Your task to perform on an android device: Show me popular videos on Youtube Image 0: 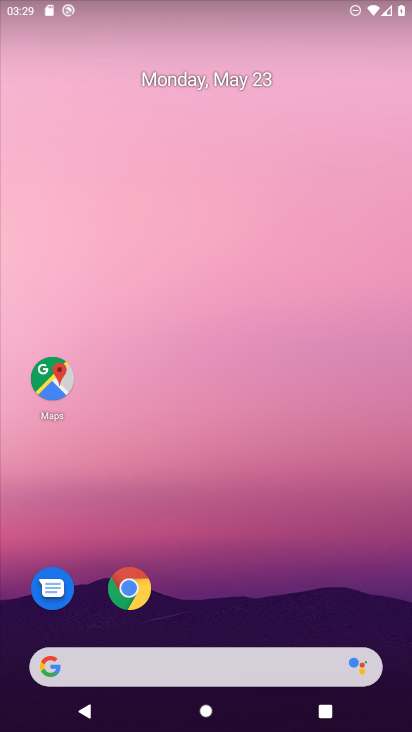
Step 0: drag from (248, 727) to (236, 28)
Your task to perform on an android device: Show me popular videos on Youtube Image 1: 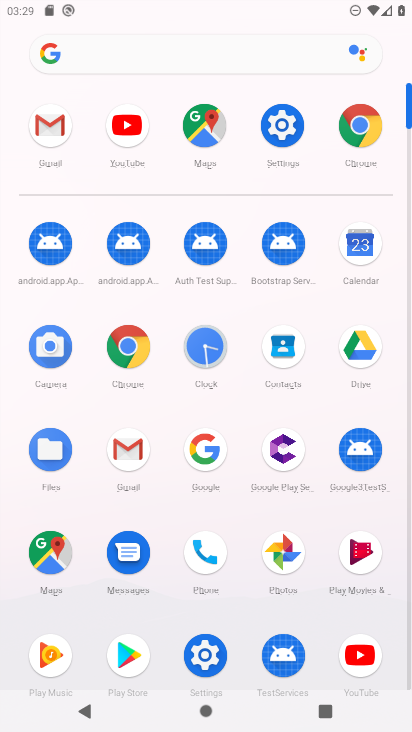
Step 1: click (372, 651)
Your task to perform on an android device: Show me popular videos on Youtube Image 2: 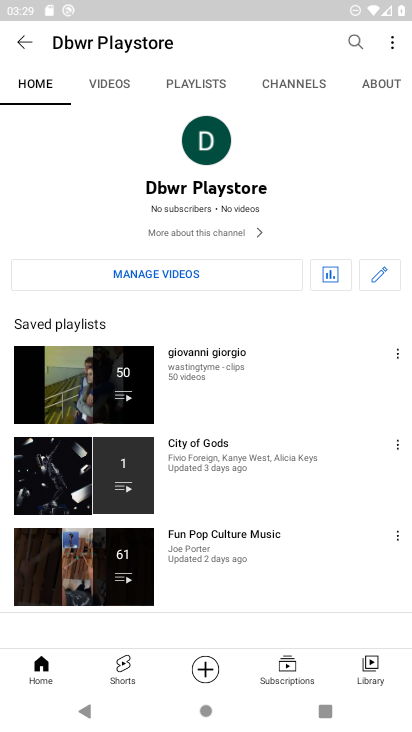
Step 2: click (23, 38)
Your task to perform on an android device: Show me popular videos on Youtube Image 3: 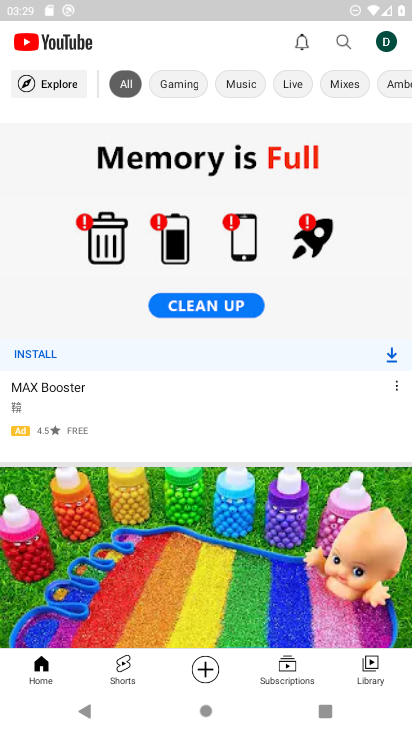
Step 3: click (344, 40)
Your task to perform on an android device: Show me popular videos on Youtube Image 4: 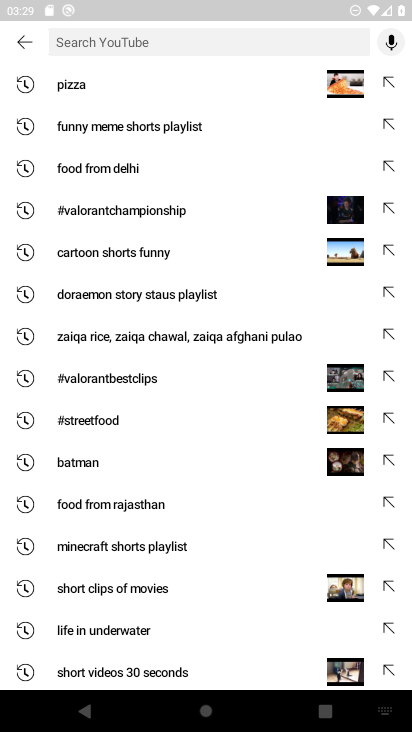
Step 4: type "popular videos on youtube"
Your task to perform on an android device: Show me popular videos on Youtube Image 5: 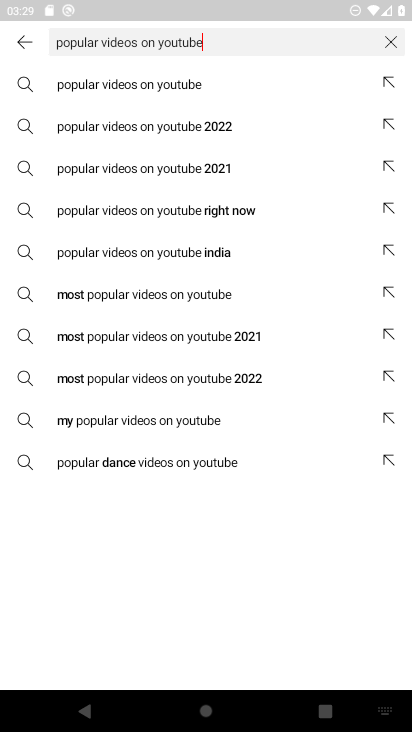
Step 5: click (125, 78)
Your task to perform on an android device: Show me popular videos on Youtube Image 6: 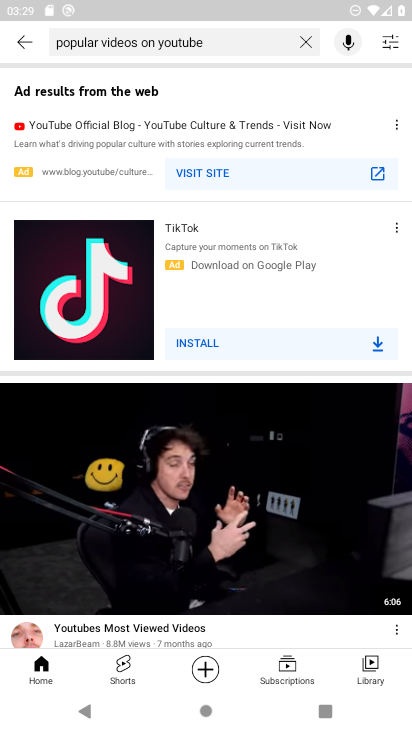
Step 6: click (215, 497)
Your task to perform on an android device: Show me popular videos on Youtube Image 7: 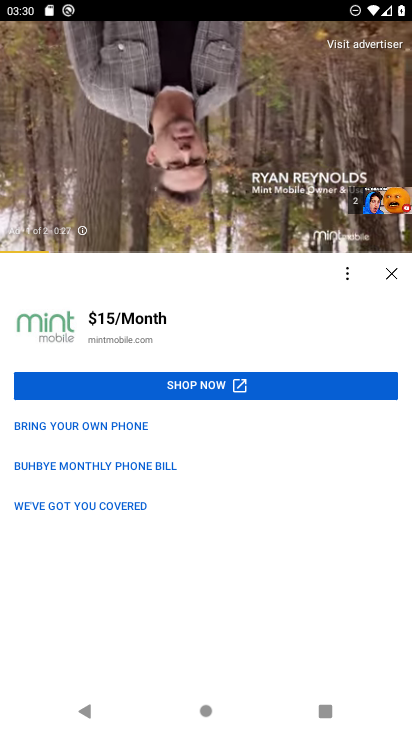
Step 7: click (391, 268)
Your task to perform on an android device: Show me popular videos on Youtube Image 8: 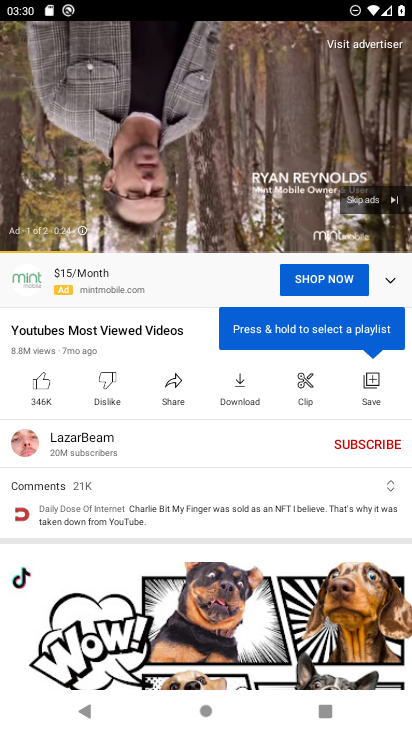
Step 8: click (371, 203)
Your task to perform on an android device: Show me popular videos on Youtube Image 9: 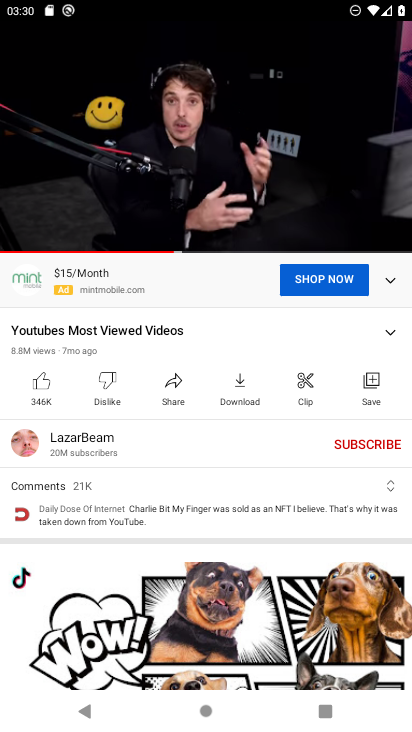
Step 9: task complete